Your task to perform on an android device: toggle sleep mode Image 0: 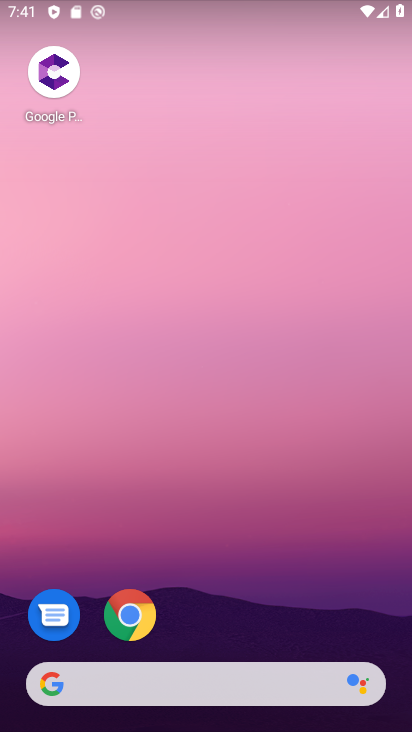
Step 0: drag from (168, 15) to (134, 513)
Your task to perform on an android device: toggle sleep mode Image 1: 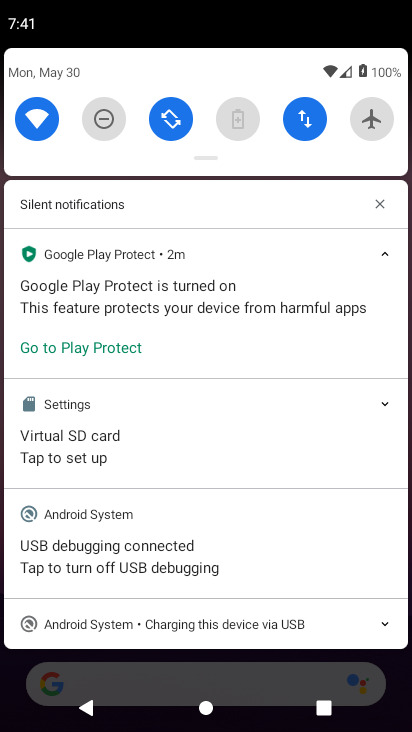
Step 1: drag from (207, 163) to (200, 468)
Your task to perform on an android device: toggle sleep mode Image 2: 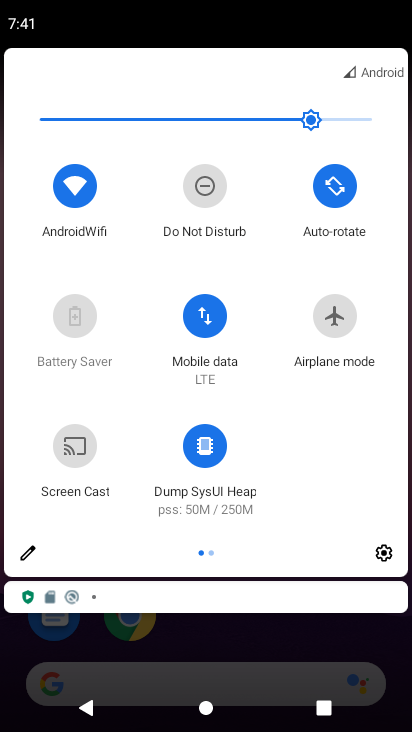
Step 2: click (17, 552)
Your task to perform on an android device: toggle sleep mode Image 3: 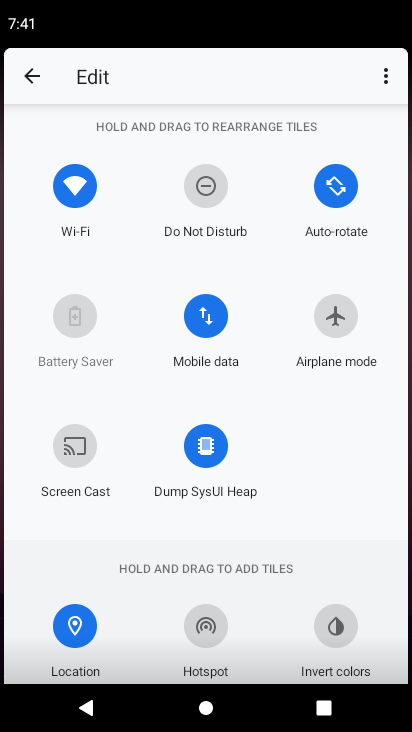
Step 3: drag from (298, 578) to (342, 339)
Your task to perform on an android device: toggle sleep mode Image 4: 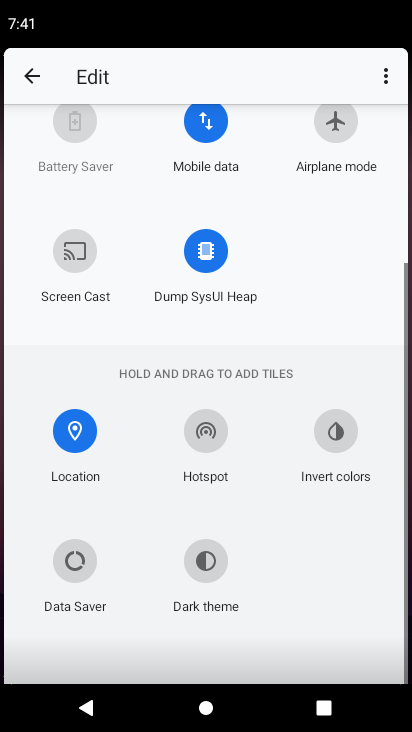
Step 4: drag from (296, 558) to (288, 427)
Your task to perform on an android device: toggle sleep mode Image 5: 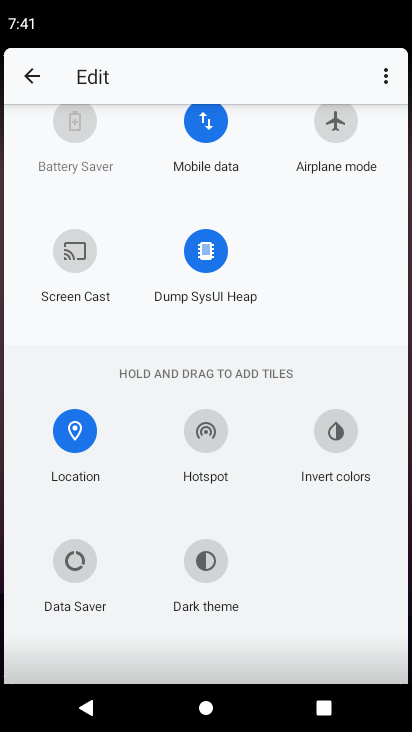
Step 5: press home button
Your task to perform on an android device: toggle sleep mode Image 6: 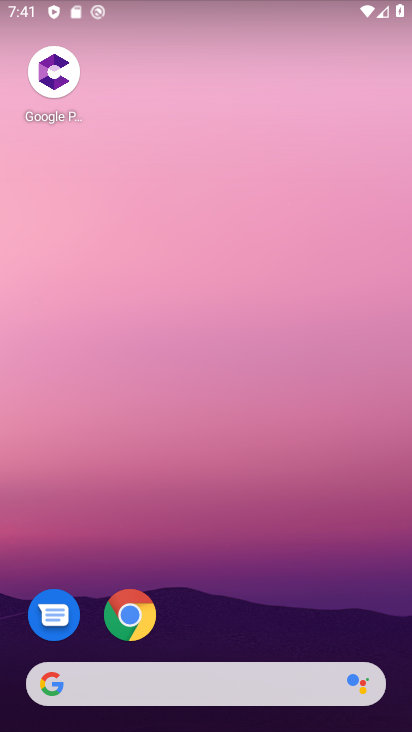
Step 6: drag from (133, 731) to (118, 86)
Your task to perform on an android device: toggle sleep mode Image 7: 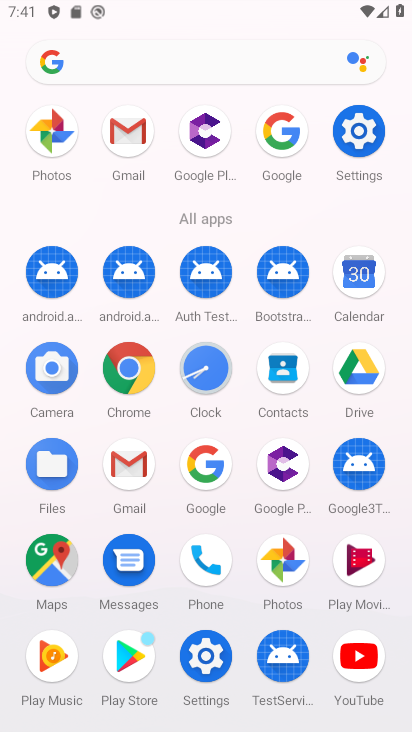
Step 7: click (350, 147)
Your task to perform on an android device: toggle sleep mode Image 8: 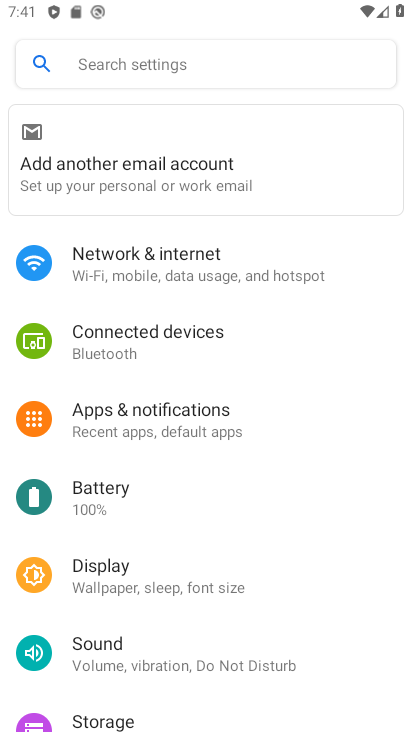
Step 8: task complete